Your task to perform on an android device: Open the stopwatch Image 0: 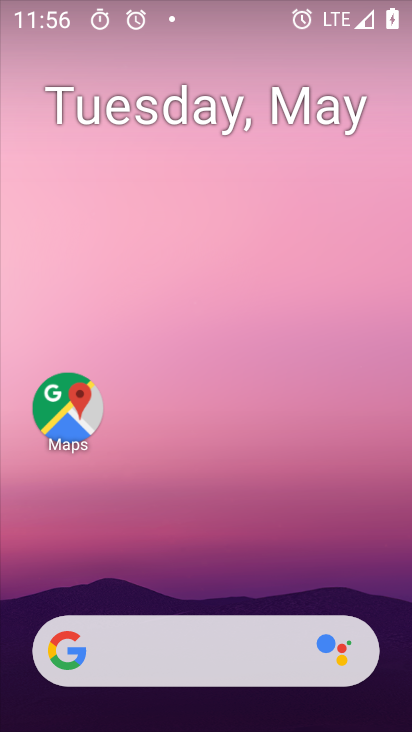
Step 0: drag from (197, 642) to (255, 150)
Your task to perform on an android device: Open the stopwatch Image 1: 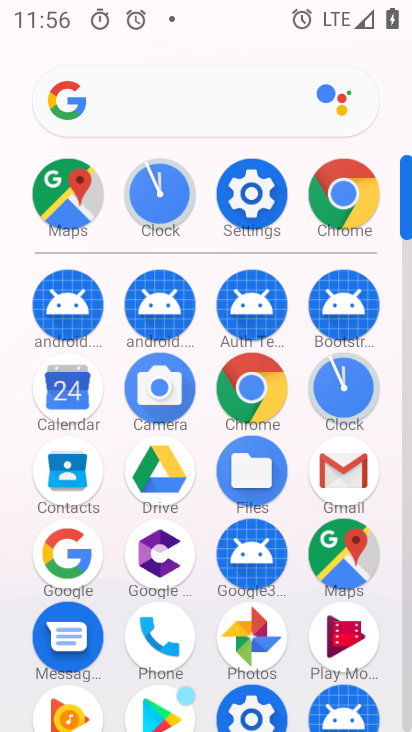
Step 1: click (350, 384)
Your task to perform on an android device: Open the stopwatch Image 2: 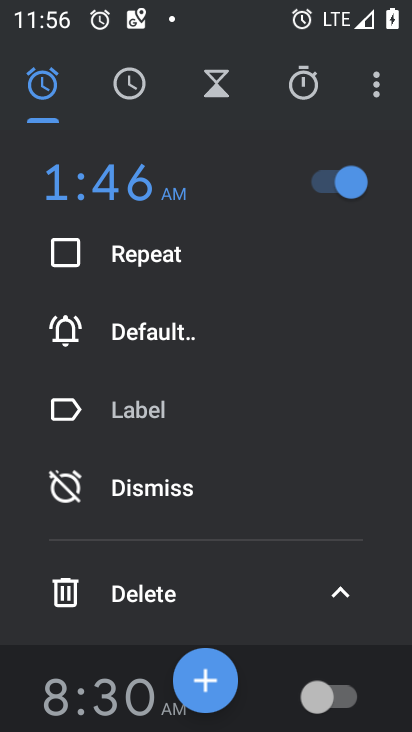
Step 2: click (316, 87)
Your task to perform on an android device: Open the stopwatch Image 3: 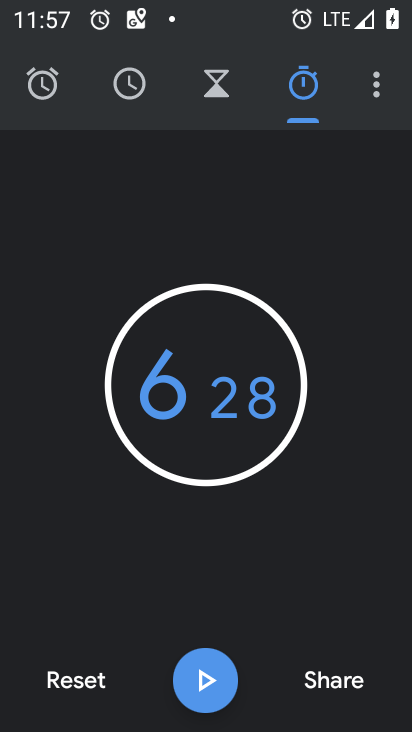
Step 3: task complete